Your task to perform on an android device: View the shopping cart on walmart.com. Search for "razer nari" on walmart.com, select the first entry, and add it to the cart. Image 0: 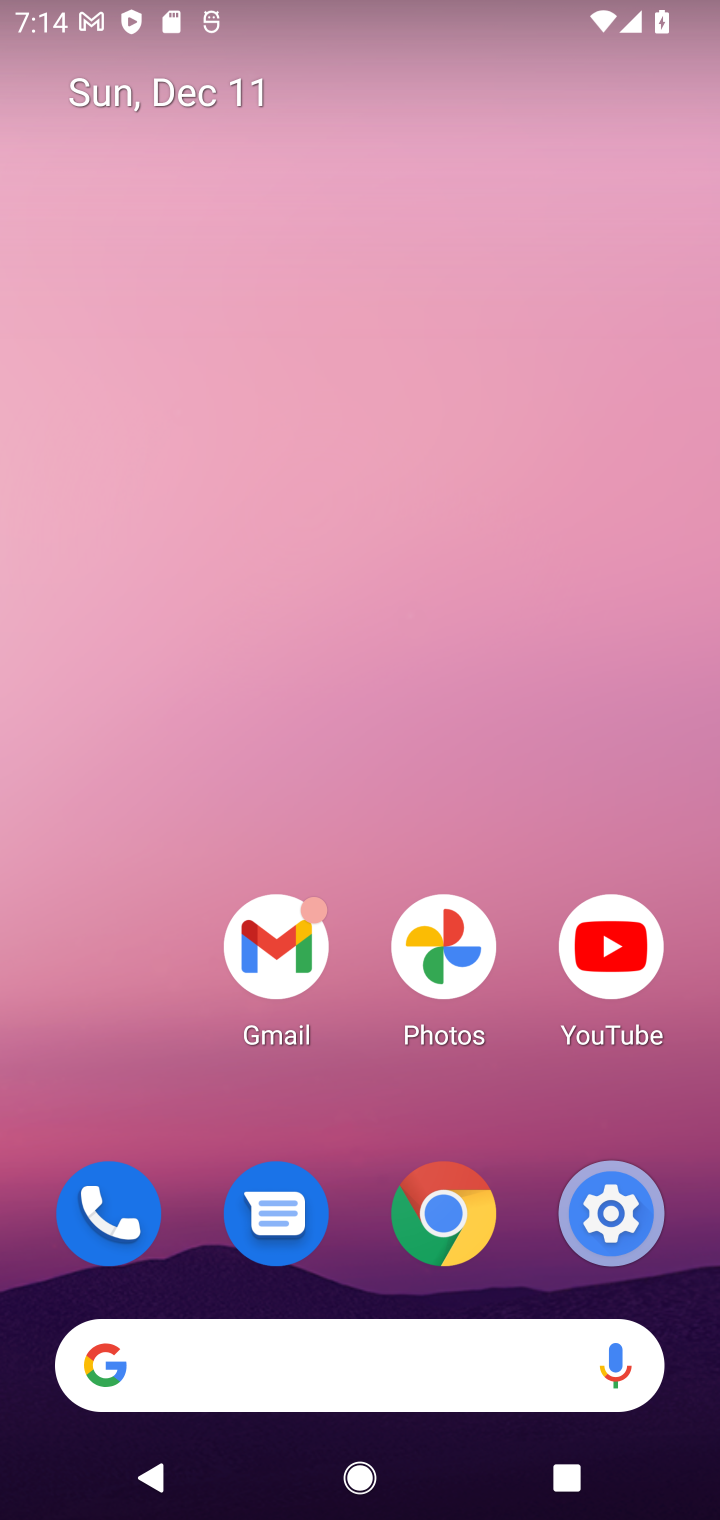
Step 0: click (252, 1371)
Your task to perform on an android device: View the shopping cart on walmart.com. Search for "razer nari" on walmart.com, select the first entry, and add it to the cart. Image 1: 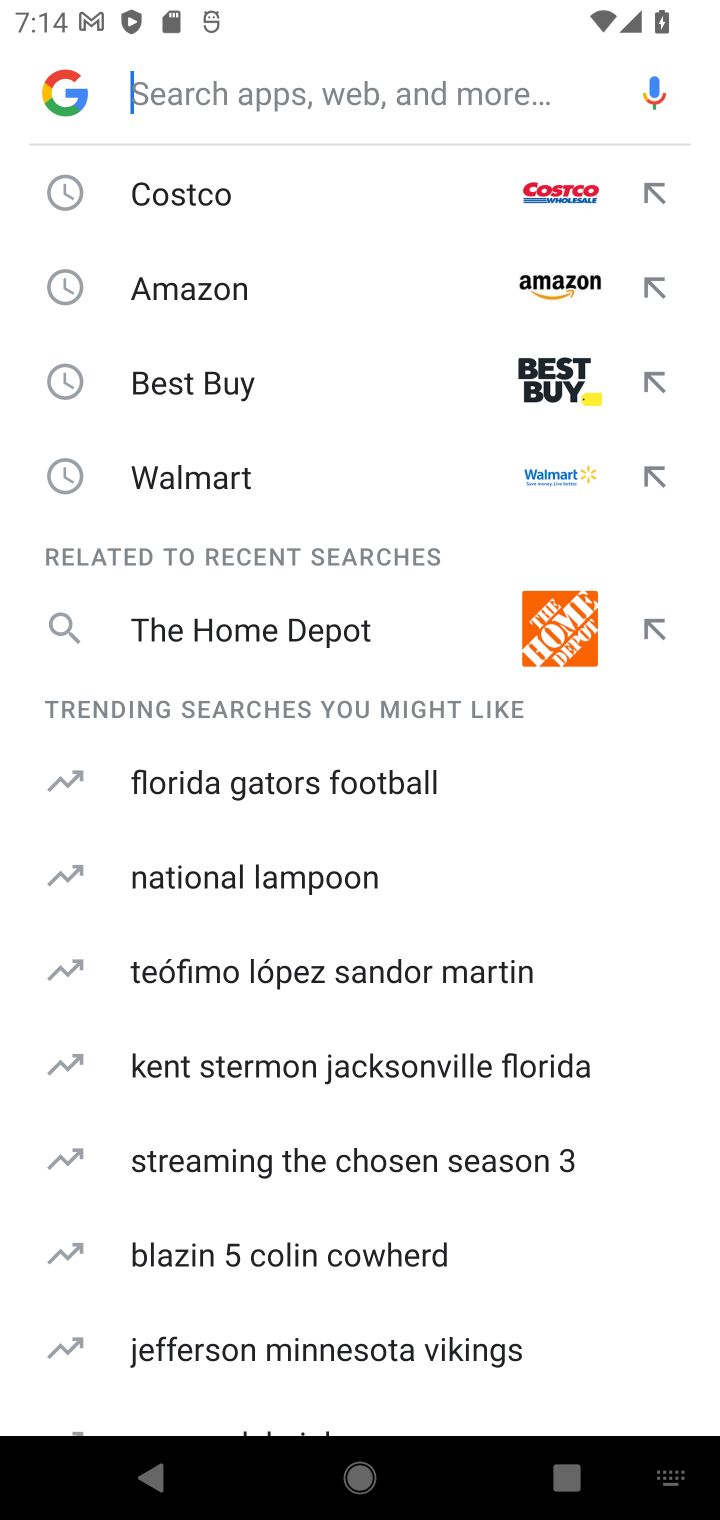
Step 1: click (448, 471)
Your task to perform on an android device: View the shopping cart on walmart.com. Search for "razer nari" on walmart.com, select the first entry, and add it to the cart. Image 2: 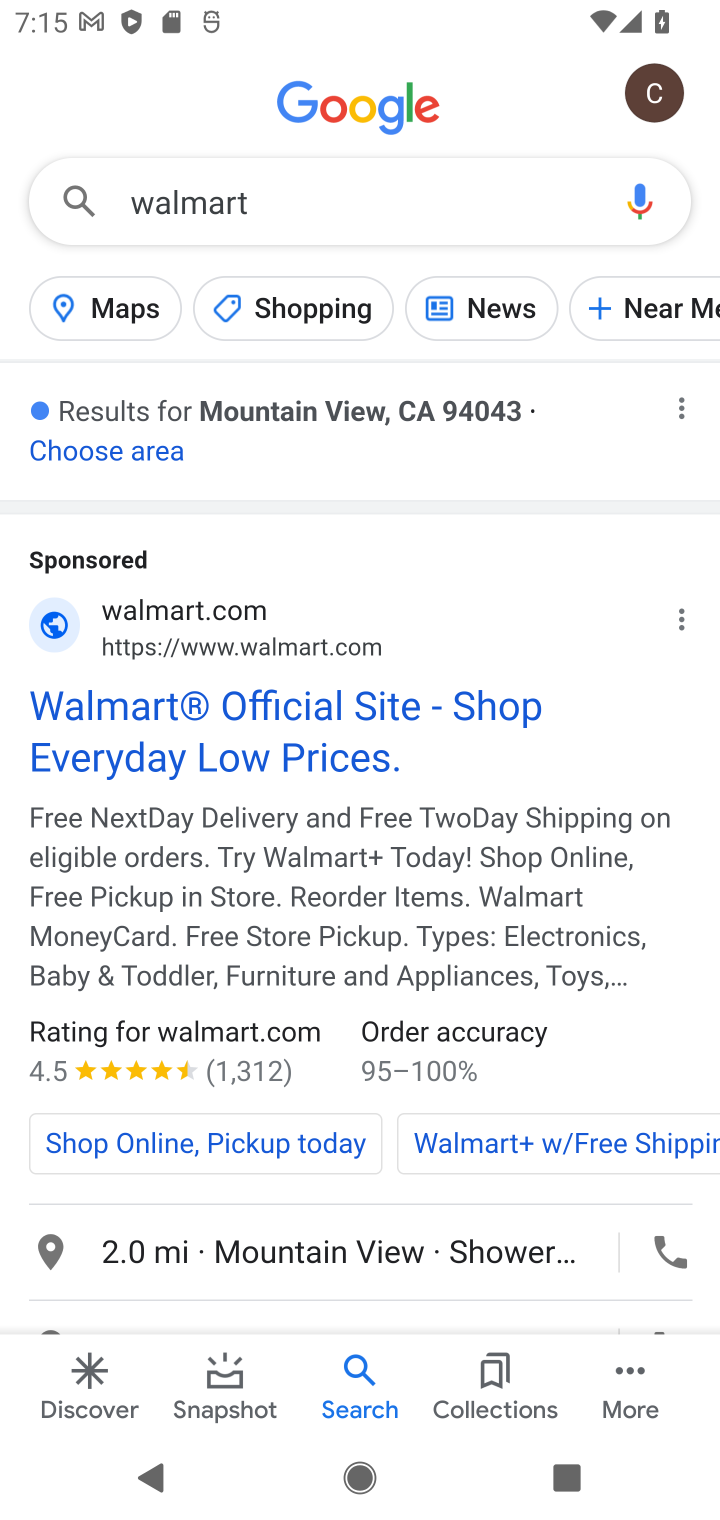
Step 2: click (199, 682)
Your task to perform on an android device: View the shopping cart on walmart.com. Search for "razer nari" on walmart.com, select the first entry, and add it to the cart. Image 3: 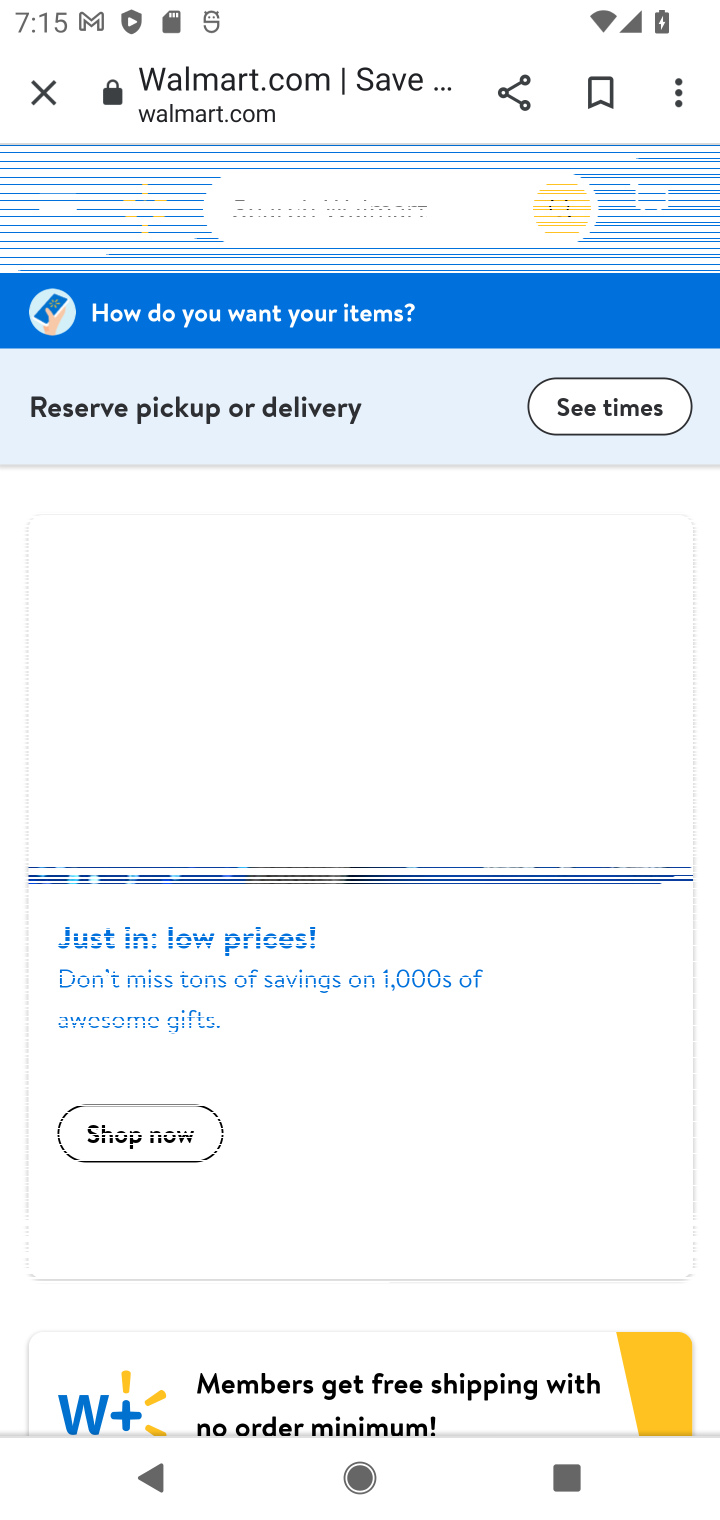
Step 3: click (431, 210)
Your task to perform on an android device: View the shopping cart on walmart.com. Search for "razer nari" on walmart.com, select the first entry, and add it to the cart. Image 4: 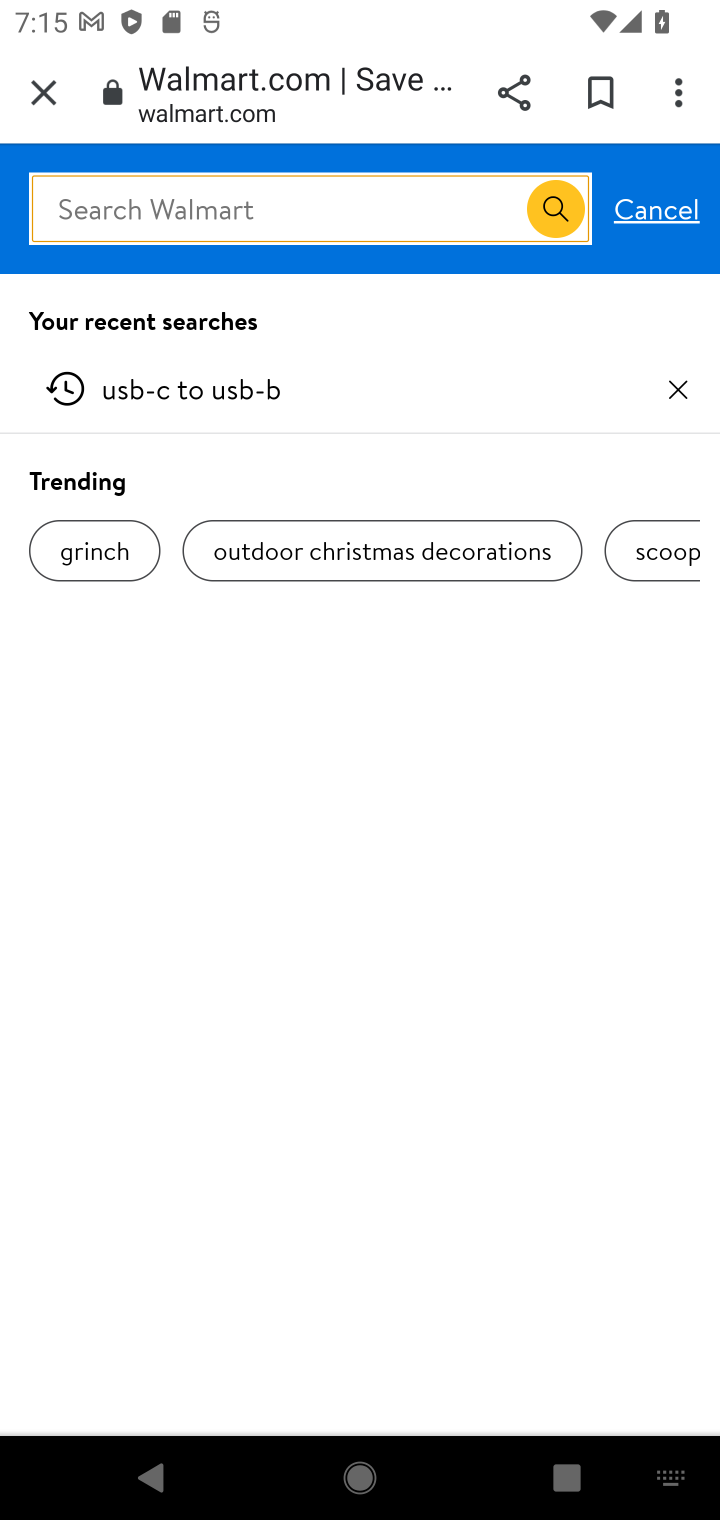
Step 4: type "razer nari"
Your task to perform on an android device: View the shopping cart on walmart.com. Search for "razer nari" on walmart.com, select the first entry, and add it to the cart. Image 5: 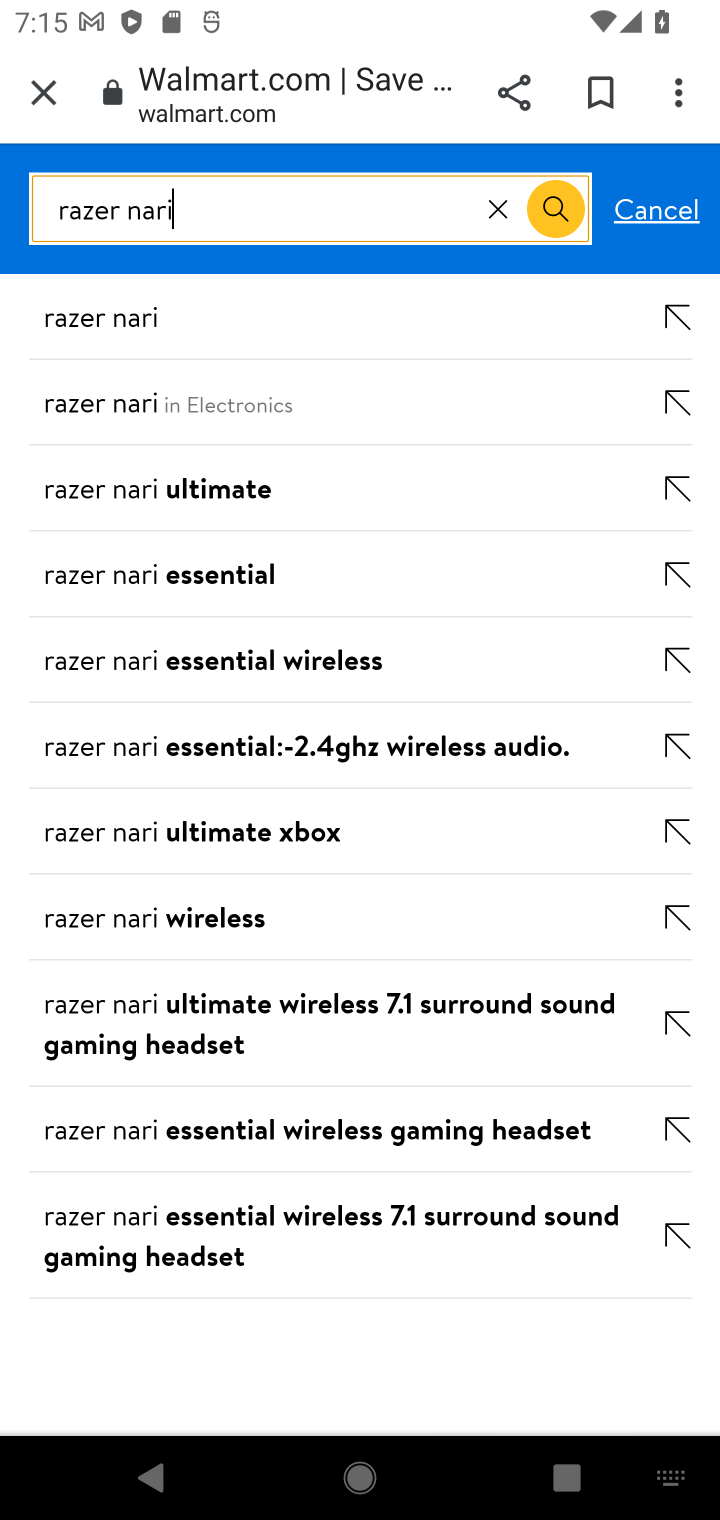
Step 5: click (544, 222)
Your task to perform on an android device: View the shopping cart on walmart.com. Search for "razer nari" on walmart.com, select the first entry, and add it to the cart. Image 6: 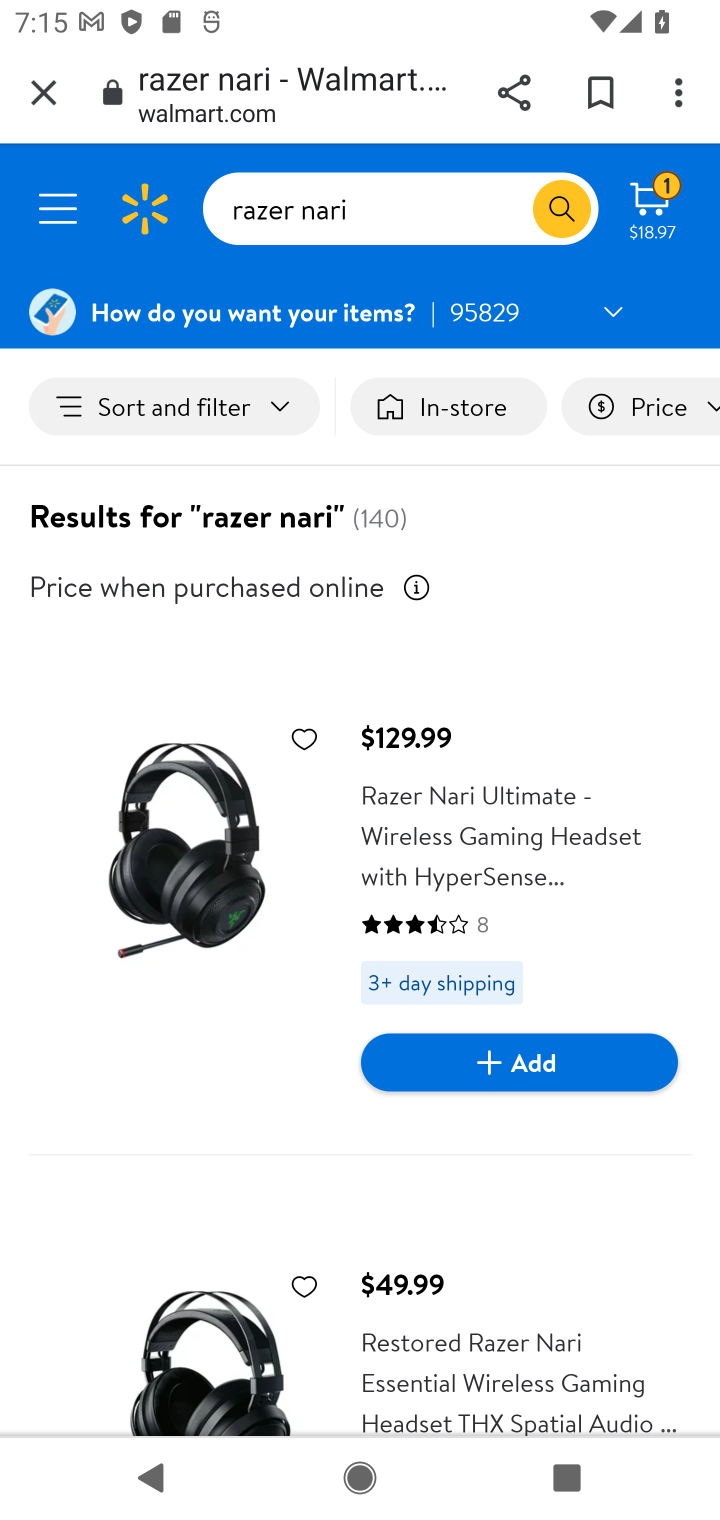
Step 6: click (614, 1074)
Your task to perform on an android device: View the shopping cart on walmart.com. Search for "razer nari" on walmart.com, select the first entry, and add it to the cart. Image 7: 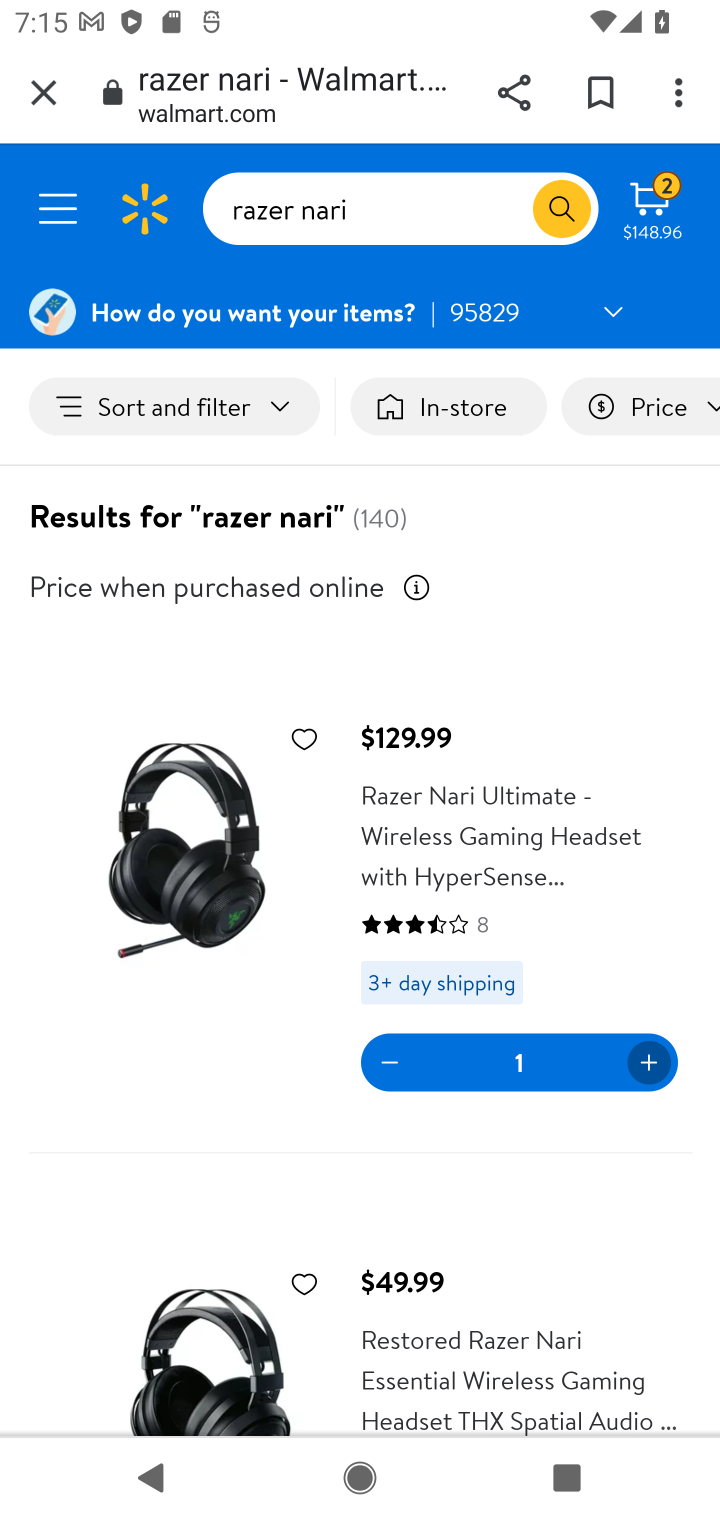
Step 7: task complete